Your task to perform on an android device: Open settings Image 0: 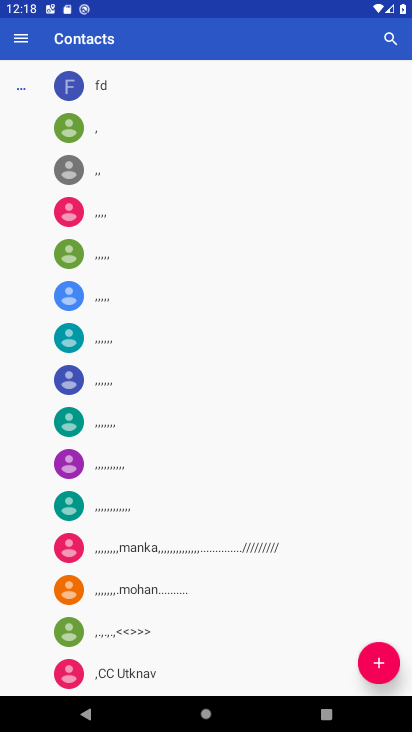
Step 0: press home button
Your task to perform on an android device: Open settings Image 1: 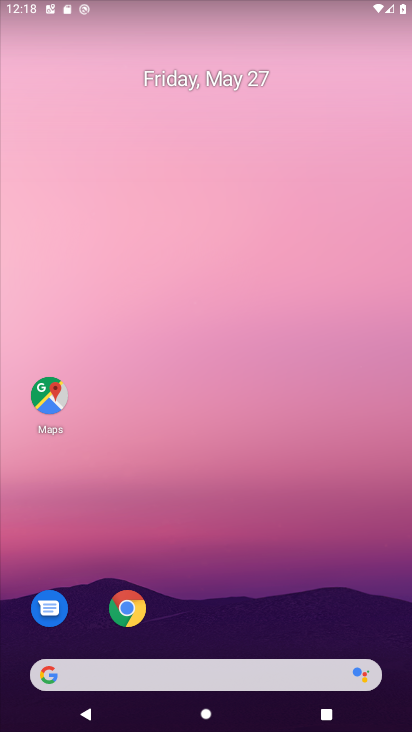
Step 1: drag from (398, 641) to (385, 46)
Your task to perform on an android device: Open settings Image 2: 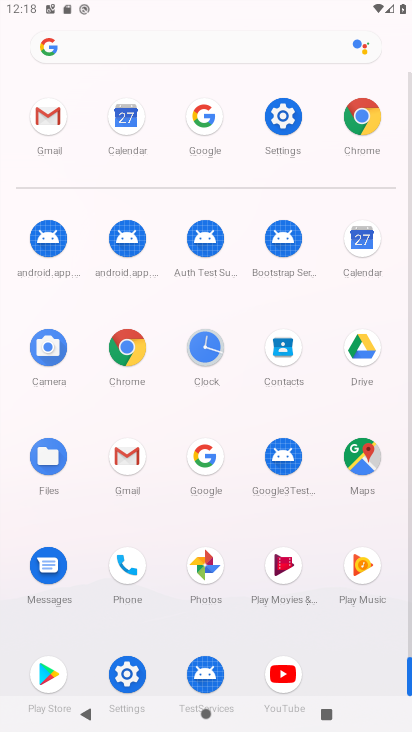
Step 2: click (296, 116)
Your task to perform on an android device: Open settings Image 3: 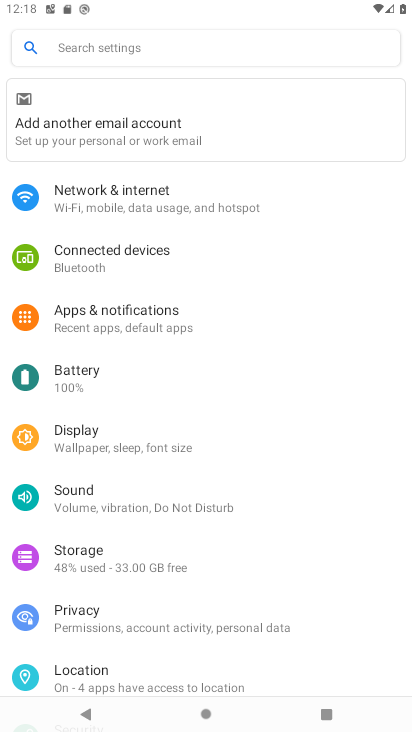
Step 3: task complete